Your task to perform on an android device: turn off notifications in google photos Image 0: 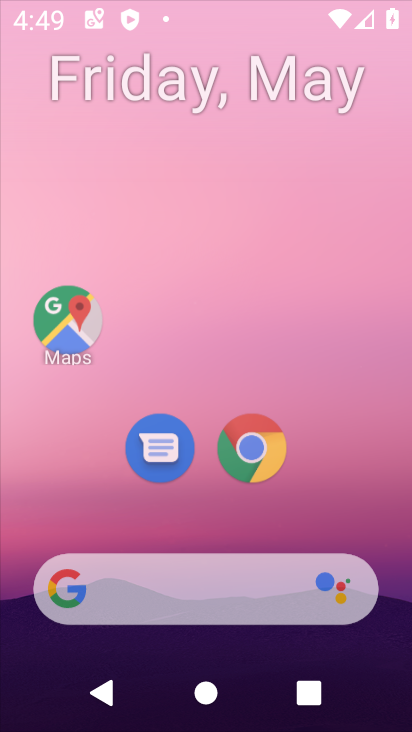
Step 0: drag from (245, 257) to (287, 82)
Your task to perform on an android device: turn off notifications in google photos Image 1: 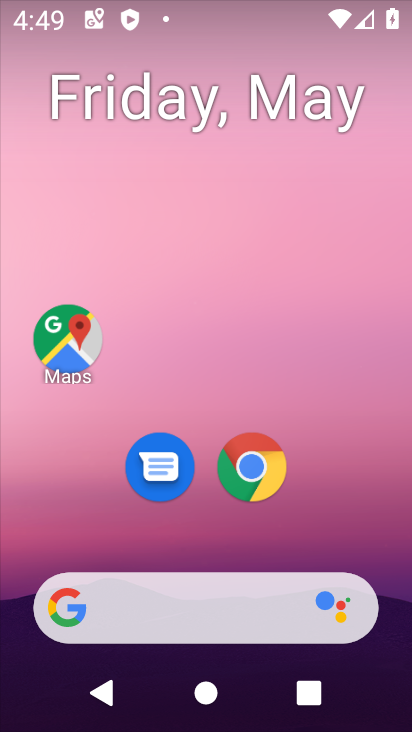
Step 1: drag from (338, 507) to (232, 37)
Your task to perform on an android device: turn off notifications in google photos Image 2: 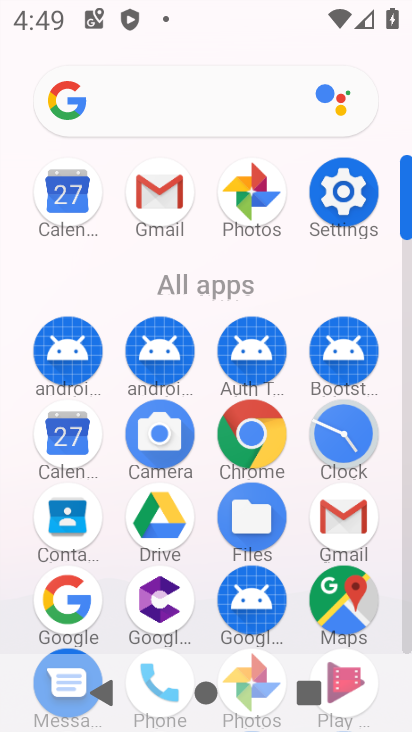
Step 2: click (349, 196)
Your task to perform on an android device: turn off notifications in google photos Image 3: 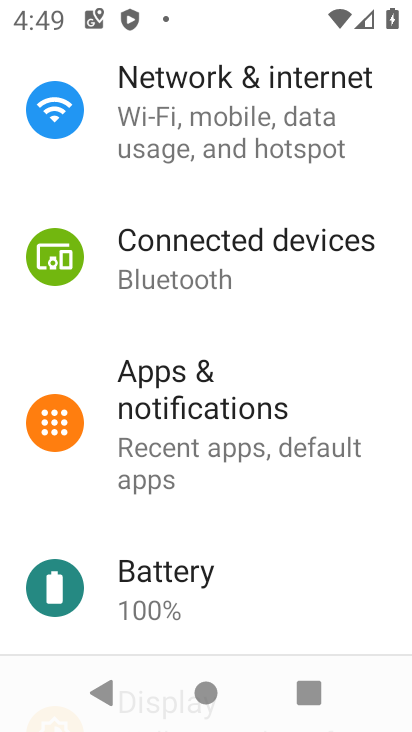
Step 3: click (254, 405)
Your task to perform on an android device: turn off notifications in google photos Image 4: 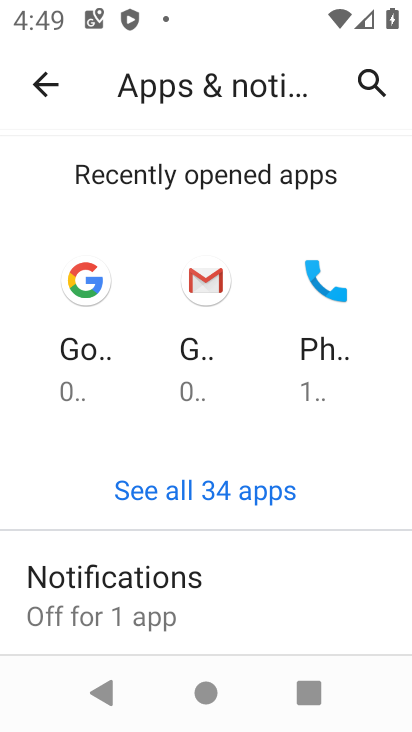
Step 4: click (205, 483)
Your task to perform on an android device: turn off notifications in google photos Image 5: 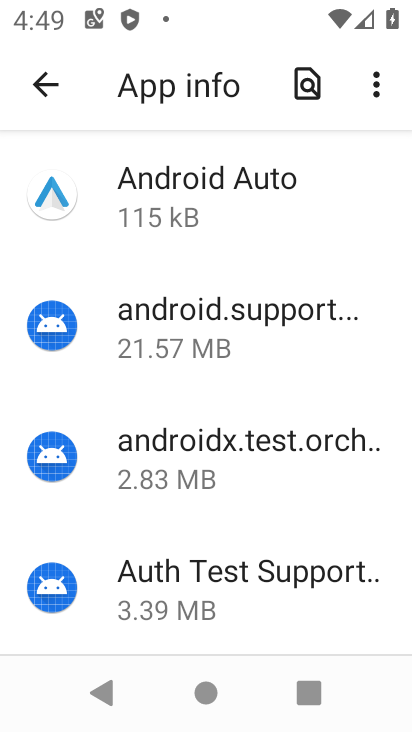
Step 5: drag from (288, 533) to (298, 121)
Your task to perform on an android device: turn off notifications in google photos Image 6: 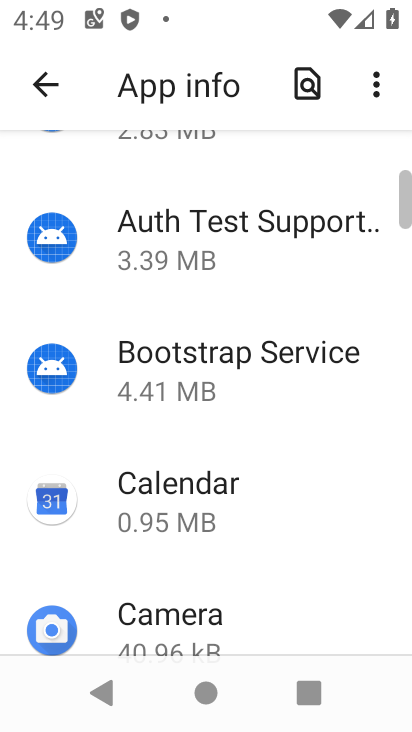
Step 6: drag from (292, 588) to (261, 196)
Your task to perform on an android device: turn off notifications in google photos Image 7: 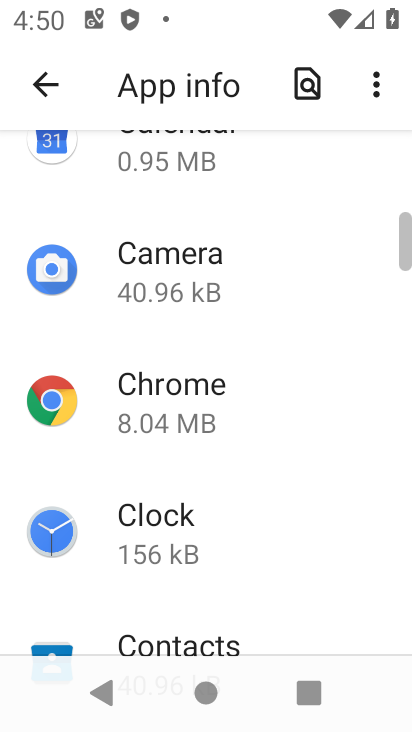
Step 7: drag from (246, 570) to (266, 200)
Your task to perform on an android device: turn off notifications in google photos Image 8: 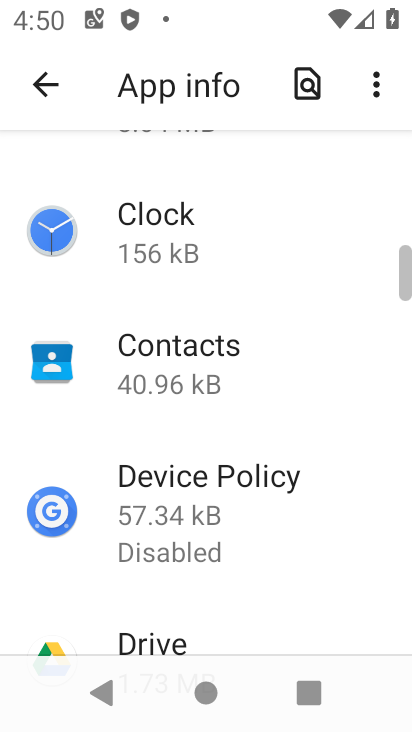
Step 8: drag from (277, 564) to (276, 200)
Your task to perform on an android device: turn off notifications in google photos Image 9: 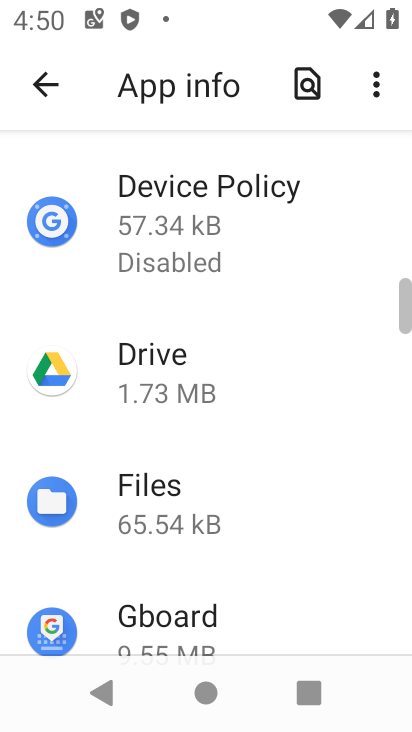
Step 9: drag from (268, 580) to (258, 36)
Your task to perform on an android device: turn off notifications in google photos Image 10: 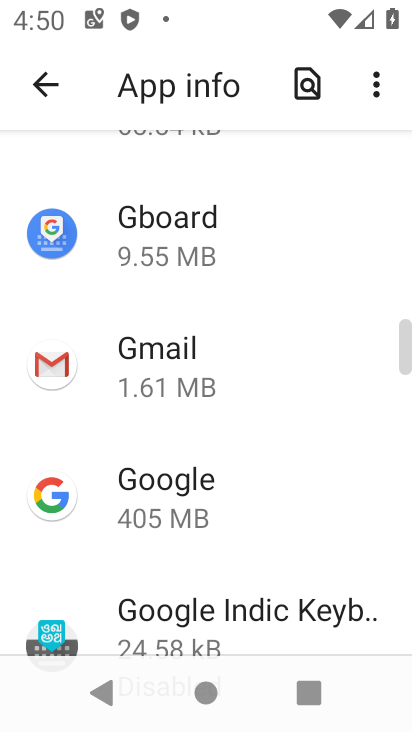
Step 10: drag from (360, 487) to (357, 137)
Your task to perform on an android device: turn off notifications in google photos Image 11: 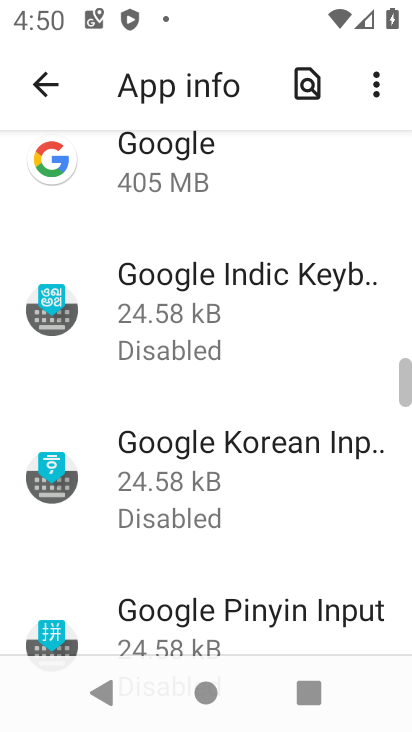
Step 11: drag from (320, 535) to (300, 171)
Your task to perform on an android device: turn off notifications in google photos Image 12: 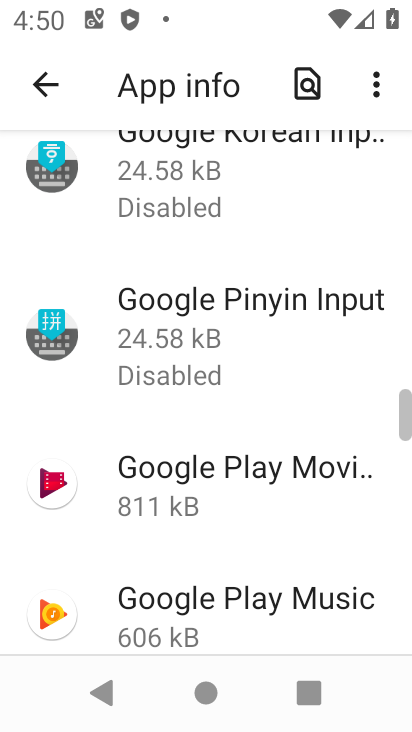
Step 12: drag from (288, 533) to (293, 139)
Your task to perform on an android device: turn off notifications in google photos Image 13: 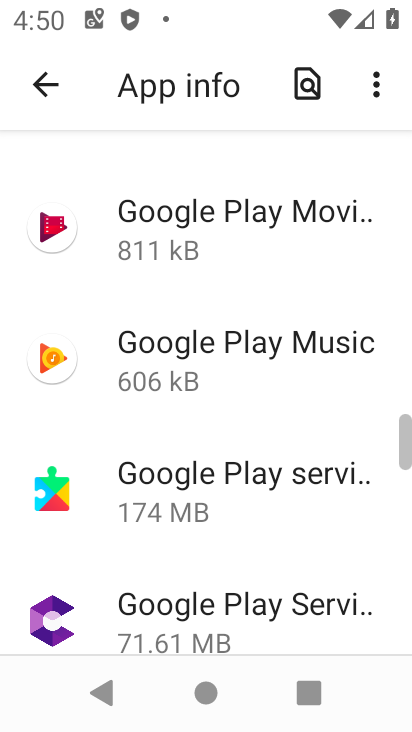
Step 13: drag from (306, 568) to (328, 140)
Your task to perform on an android device: turn off notifications in google photos Image 14: 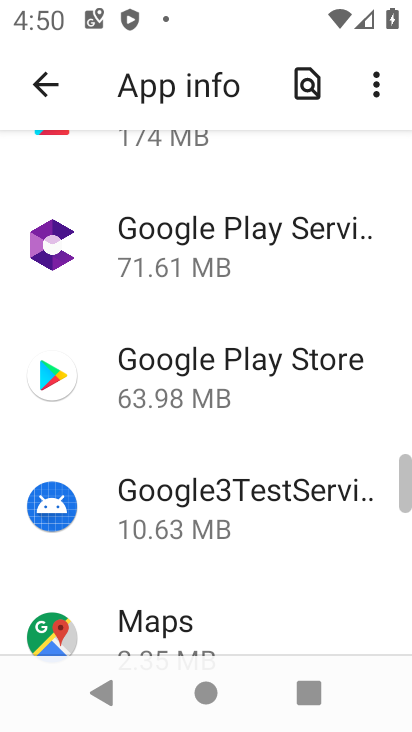
Step 14: drag from (294, 564) to (283, 193)
Your task to perform on an android device: turn off notifications in google photos Image 15: 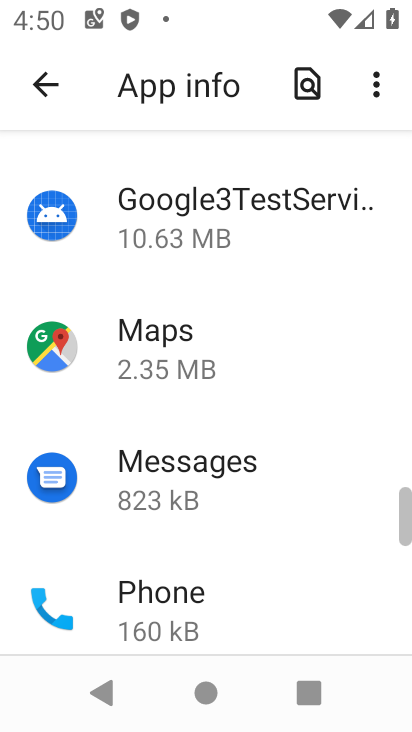
Step 15: drag from (307, 556) to (275, 193)
Your task to perform on an android device: turn off notifications in google photos Image 16: 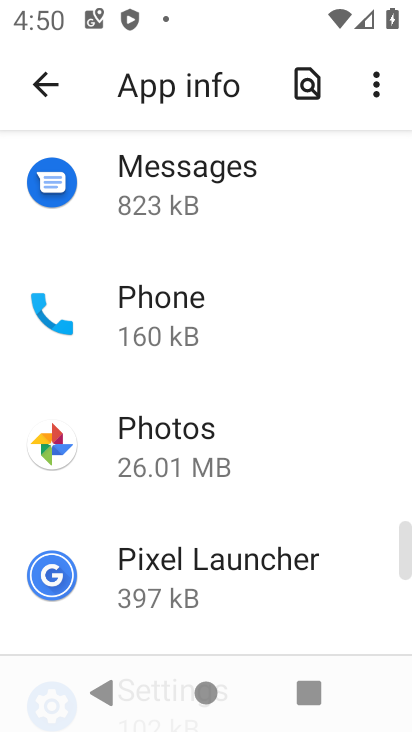
Step 16: click (141, 441)
Your task to perform on an android device: turn off notifications in google photos Image 17: 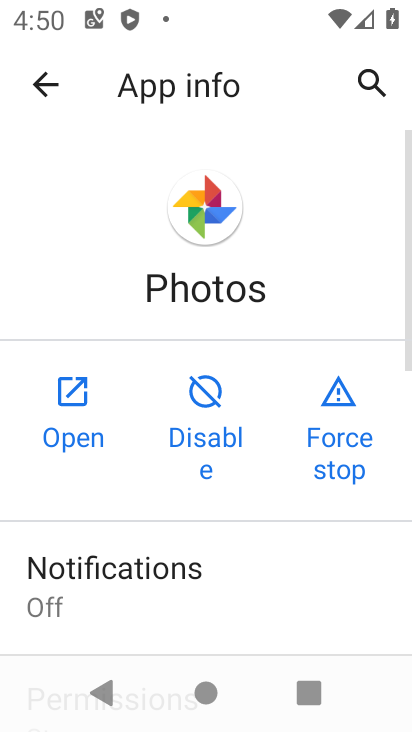
Step 17: click (122, 588)
Your task to perform on an android device: turn off notifications in google photos Image 18: 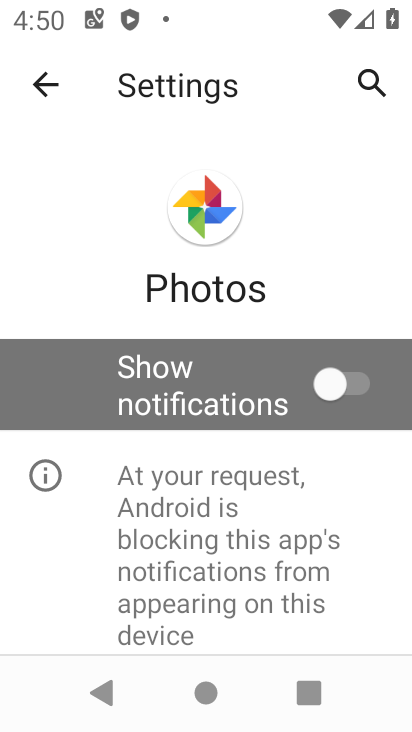
Step 18: task complete